Your task to perform on an android device: Go to privacy settings Image 0: 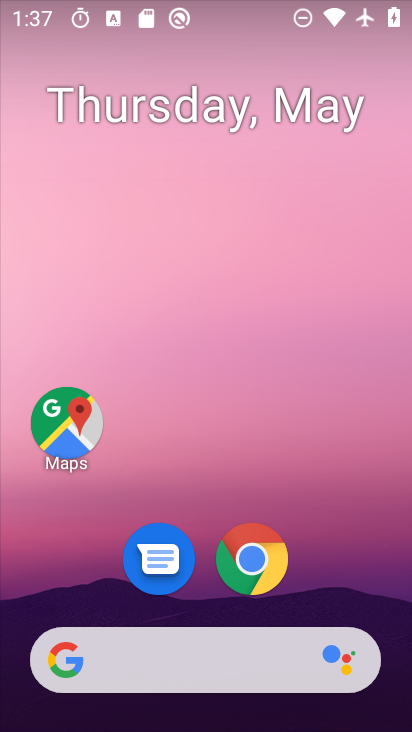
Step 0: drag from (209, 603) to (249, 4)
Your task to perform on an android device: Go to privacy settings Image 1: 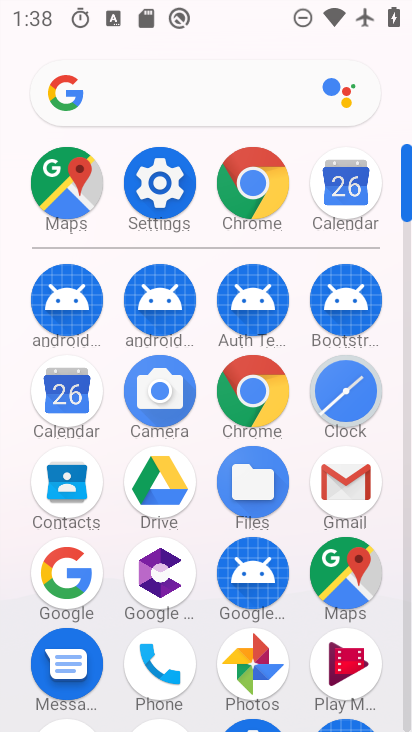
Step 1: drag from (212, 239) to (224, 189)
Your task to perform on an android device: Go to privacy settings Image 2: 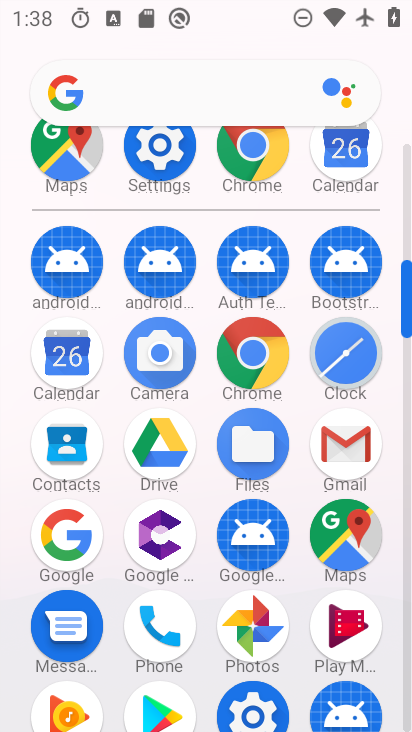
Step 2: drag from (256, 551) to (275, 121)
Your task to perform on an android device: Go to privacy settings Image 3: 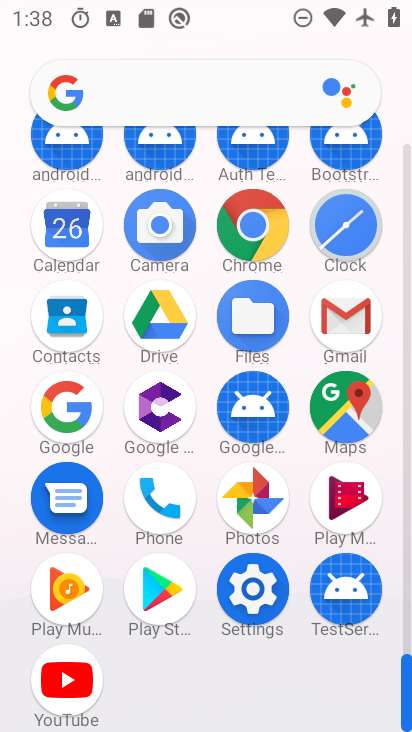
Step 3: click (248, 613)
Your task to perform on an android device: Go to privacy settings Image 4: 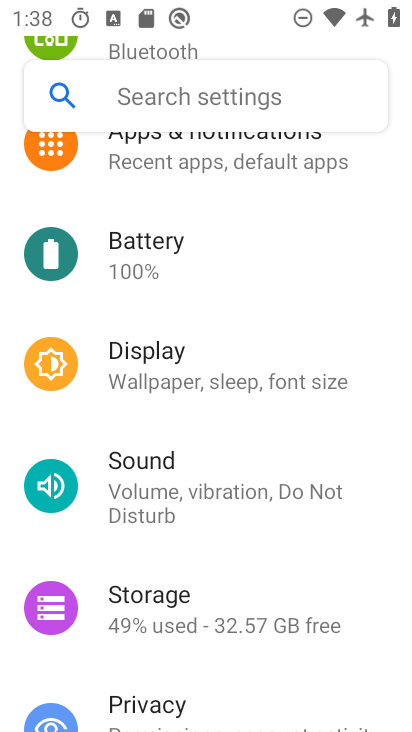
Step 4: click (251, 700)
Your task to perform on an android device: Go to privacy settings Image 5: 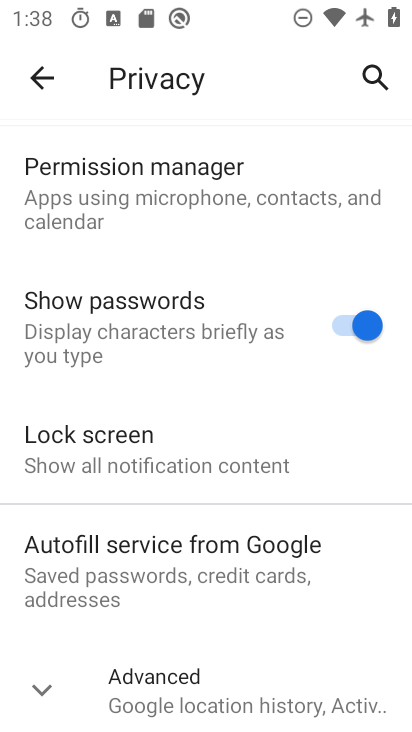
Step 5: task complete